Your task to perform on an android device: turn off sleep mode Image 0: 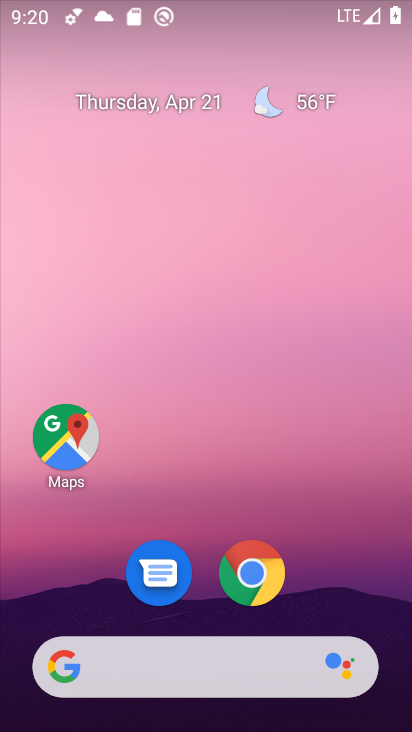
Step 0: drag from (372, 561) to (315, 198)
Your task to perform on an android device: turn off sleep mode Image 1: 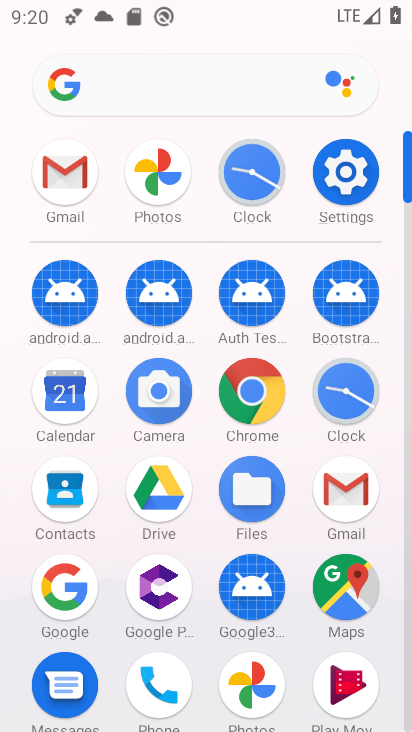
Step 1: click (350, 182)
Your task to perform on an android device: turn off sleep mode Image 2: 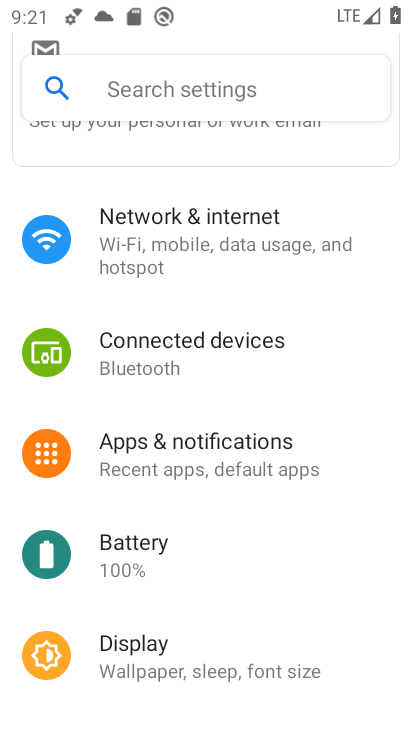
Step 2: click (187, 646)
Your task to perform on an android device: turn off sleep mode Image 3: 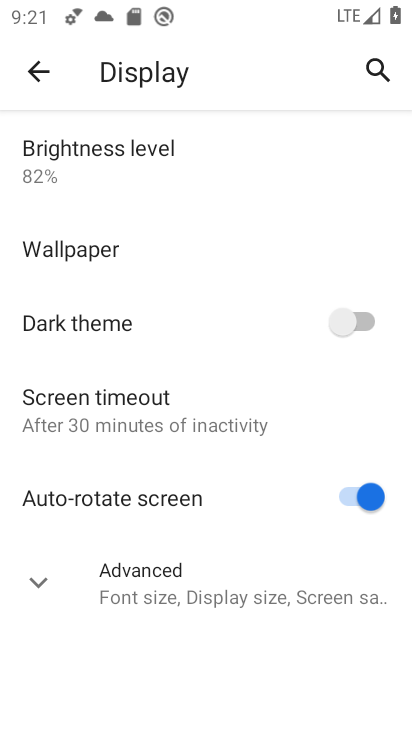
Step 3: click (183, 587)
Your task to perform on an android device: turn off sleep mode Image 4: 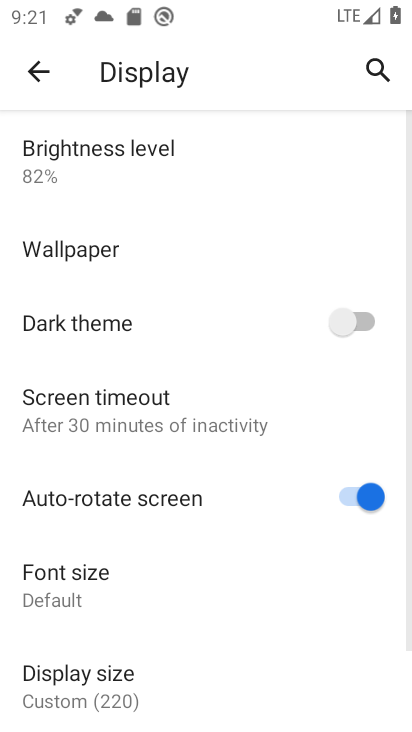
Step 4: drag from (76, 632) to (109, 330)
Your task to perform on an android device: turn off sleep mode Image 5: 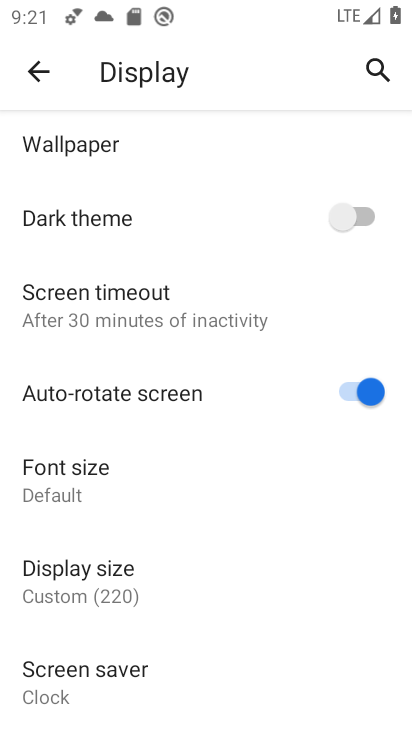
Step 5: drag from (115, 637) to (124, 313)
Your task to perform on an android device: turn off sleep mode Image 6: 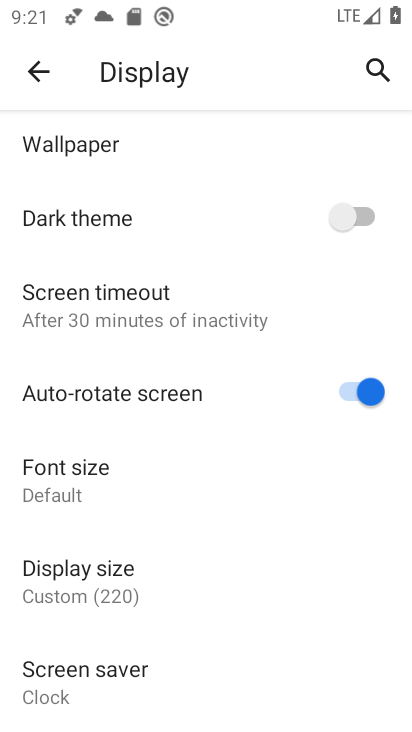
Step 6: drag from (115, 241) to (107, 624)
Your task to perform on an android device: turn off sleep mode Image 7: 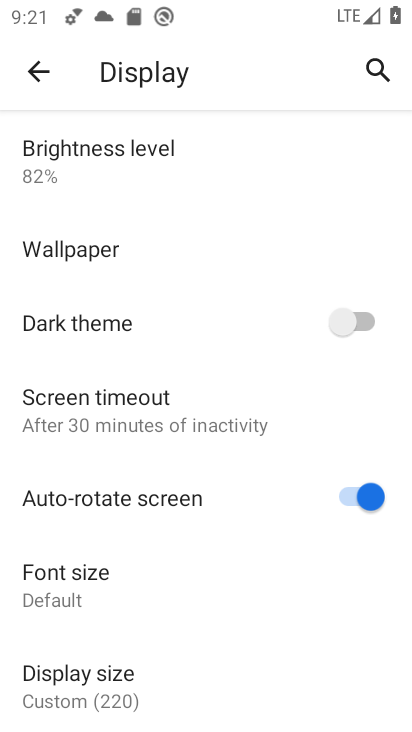
Step 7: drag from (59, 223) to (120, 553)
Your task to perform on an android device: turn off sleep mode Image 8: 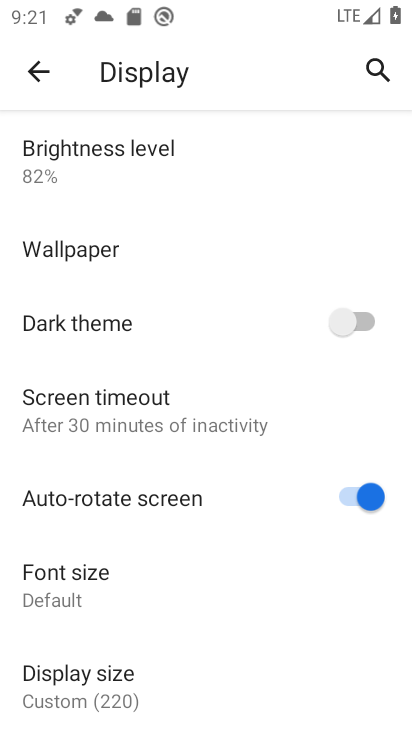
Step 8: click (45, 67)
Your task to perform on an android device: turn off sleep mode Image 9: 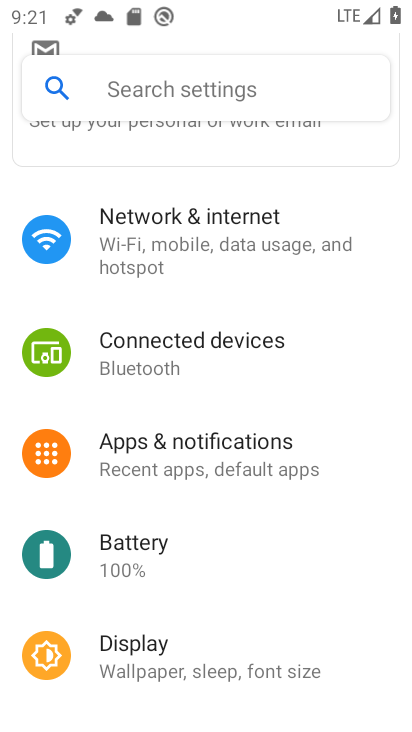
Step 9: drag from (164, 660) to (167, 451)
Your task to perform on an android device: turn off sleep mode Image 10: 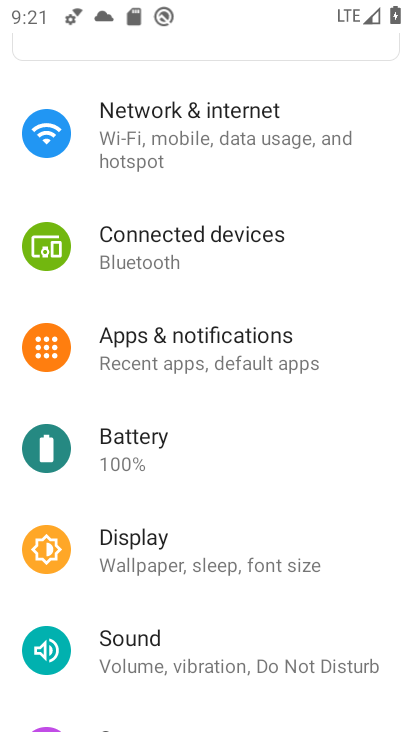
Step 10: drag from (229, 547) to (219, 366)
Your task to perform on an android device: turn off sleep mode Image 11: 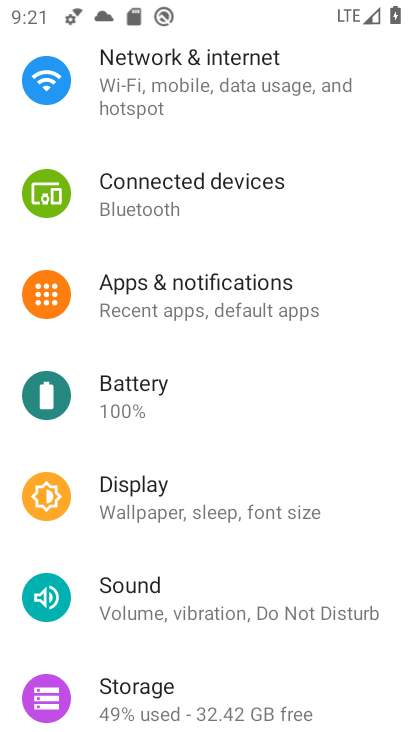
Step 11: drag from (240, 608) to (210, 393)
Your task to perform on an android device: turn off sleep mode Image 12: 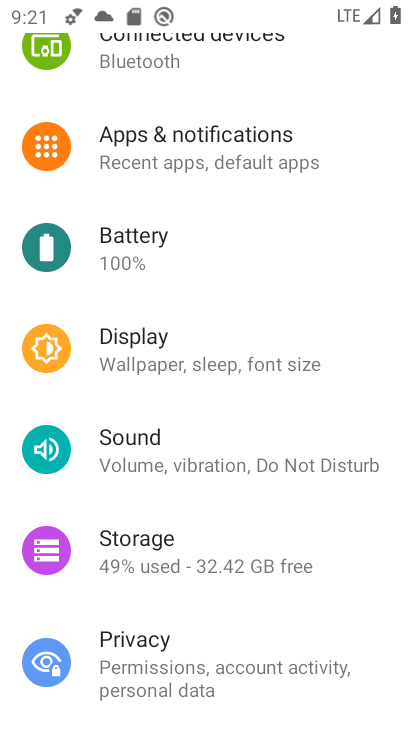
Step 12: click (172, 360)
Your task to perform on an android device: turn off sleep mode Image 13: 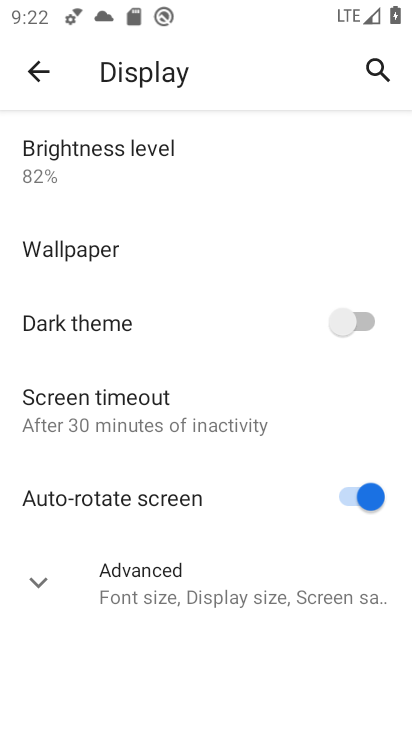
Step 13: drag from (125, 458) to (167, 295)
Your task to perform on an android device: turn off sleep mode Image 14: 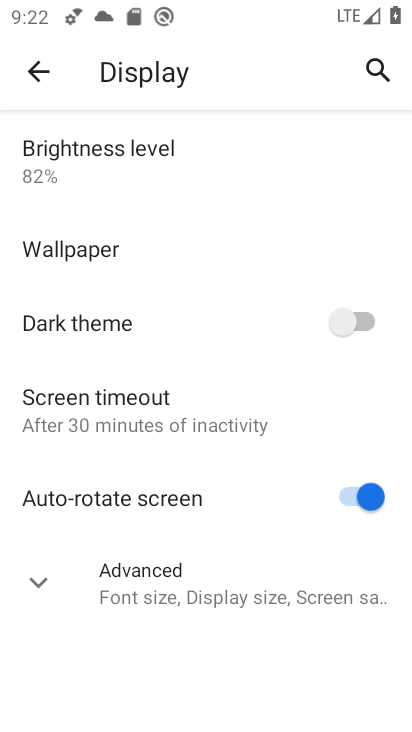
Step 14: drag from (110, 528) to (116, 615)
Your task to perform on an android device: turn off sleep mode Image 15: 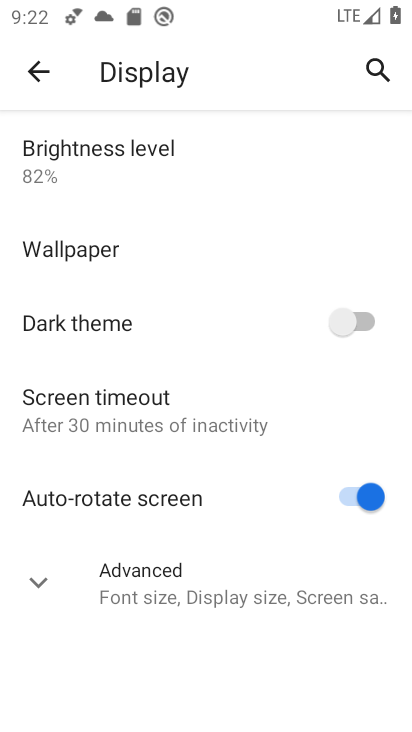
Step 15: drag from (136, 471) to (104, 303)
Your task to perform on an android device: turn off sleep mode Image 16: 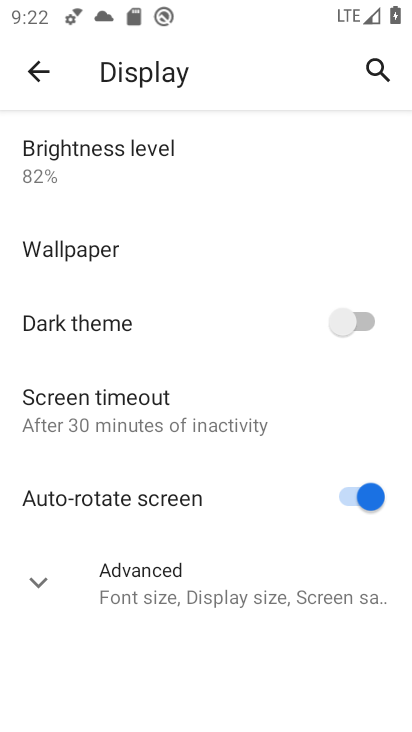
Step 16: click (105, 403)
Your task to perform on an android device: turn off sleep mode Image 17: 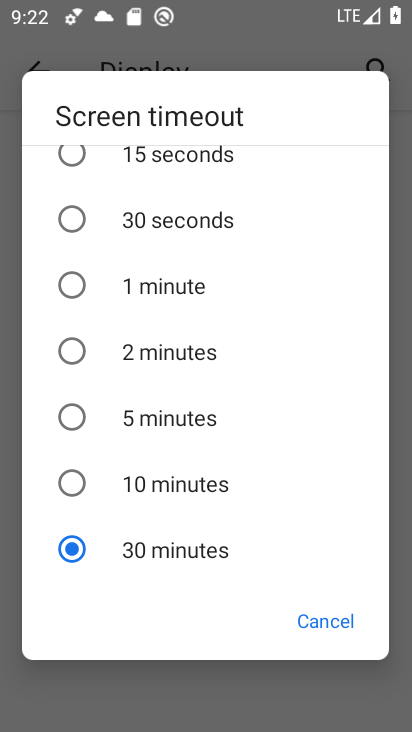
Step 17: click (326, 620)
Your task to perform on an android device: turn off sleep mode Image 18: 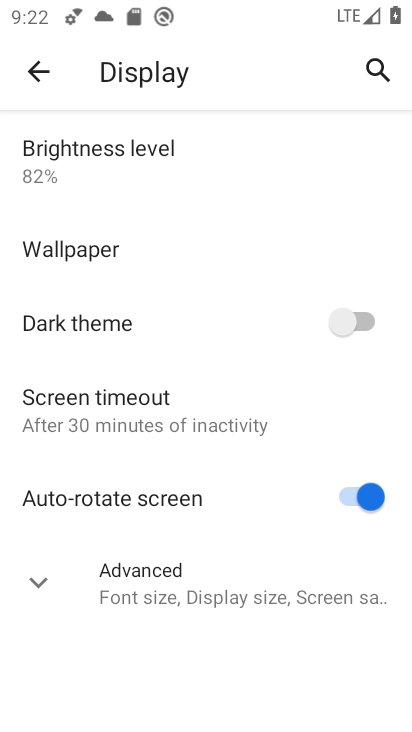
Step 18: task complete